Your task to perform on an android device: turn off notifications settings in the gmail app Image 0: 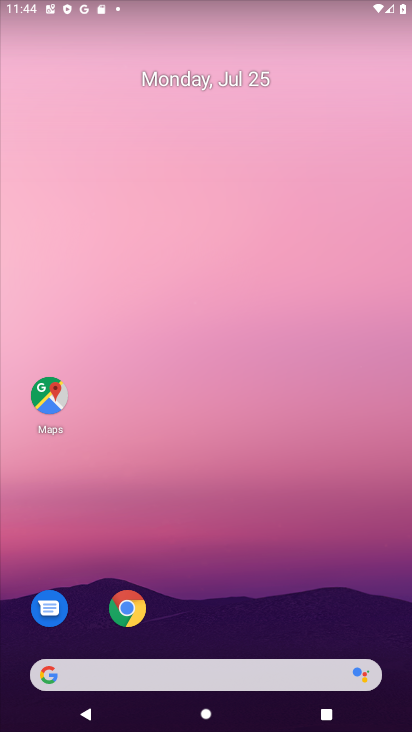
Step 0: drag from (216, 643) to (213, 137)
Your task to perform on an android device: turn off notifications settings in the gmail app Image 1: 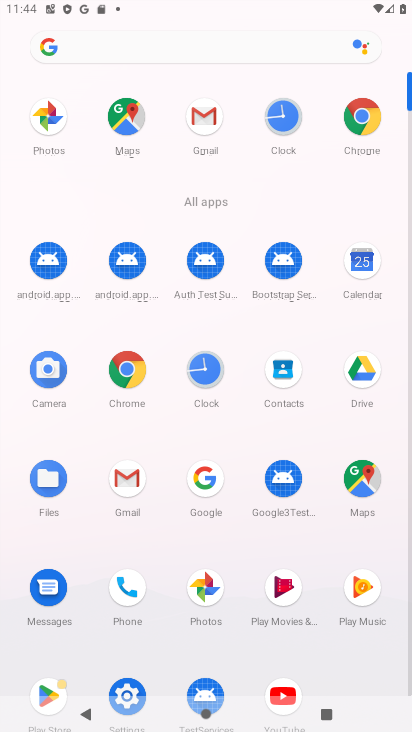
Step 1: click (108, 488)
Your task to perform on an android device: turn off notifications settings in the gmail app Image 2: 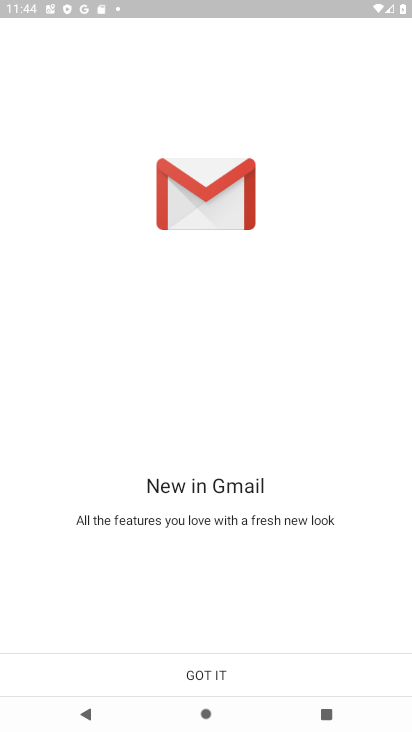
Step 2: click (204, 671)
Your task to perform on an android device: turn off notifications settings in the gmail app Image 3: 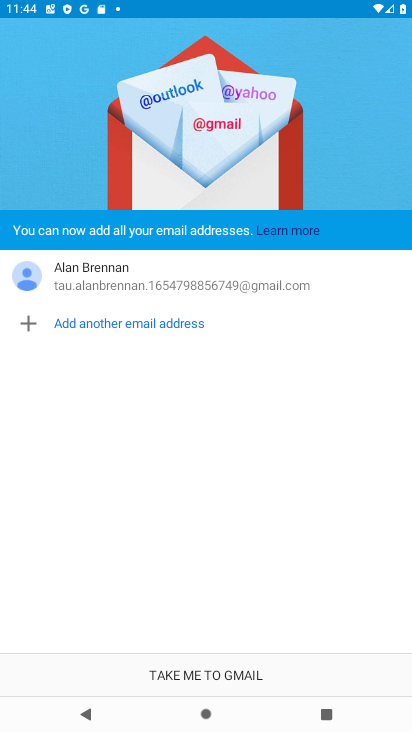
Step 3: click (238, 678)
Your task to perform on an android device: turn off notifications settings in the gmail app Image 4: 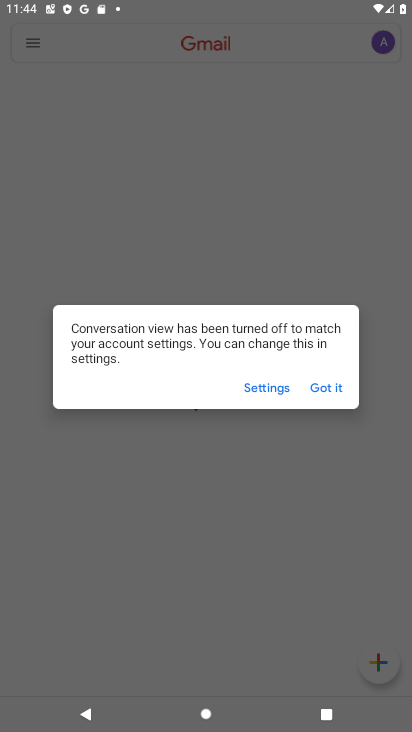
Step 4: click (334, 390)
Your task to perform on an android device: turn off notifications settings in the gmail app Image 5: 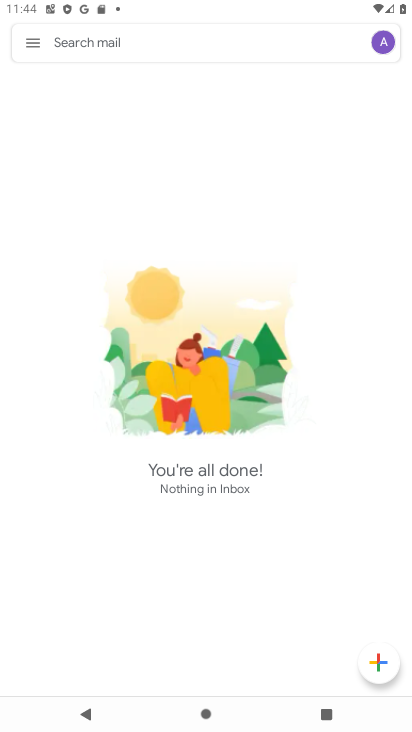
Step 5: click (28, 48)
Your task to perform on an android device: turn off notifications settings in the gmail app Image 6: 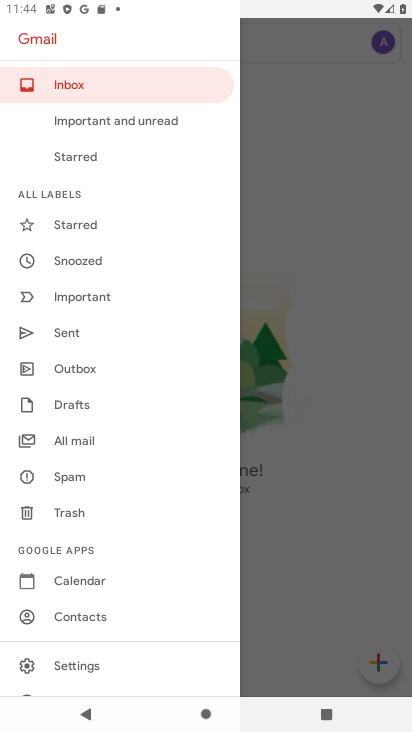
Step 6: click (92, 664)
Your task to perform on an android device: turn off notifications settings in the gmail app Image 7: 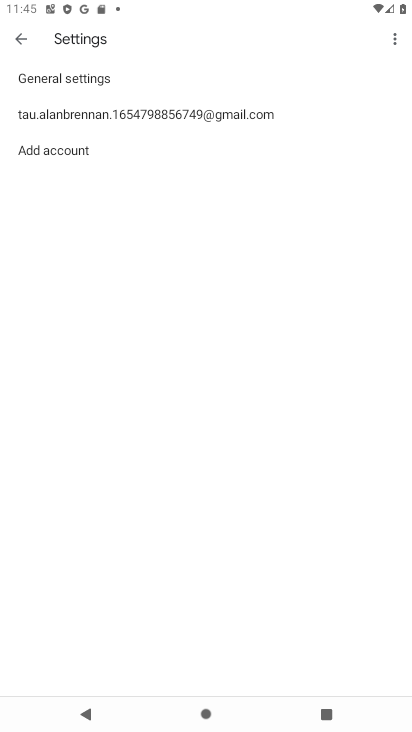
Step 7: click (119, 113)
Your task to perform on an android device: turn off notifications settings in the gmail app Image 8: 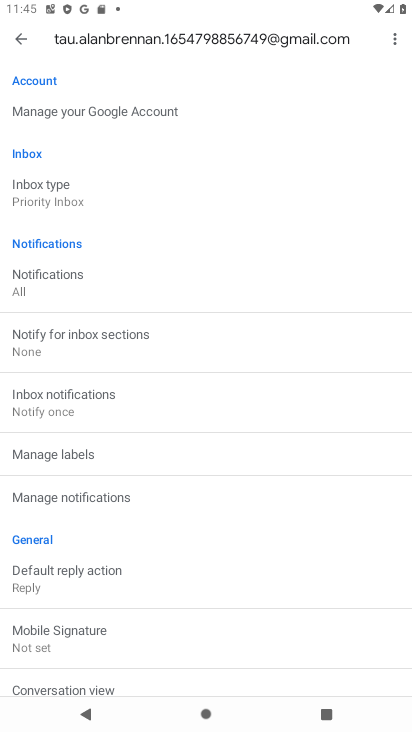
Step 8: click (96, 501)
Your task to perform on an android device: turn off notifications settings in the gmail app Image 9: 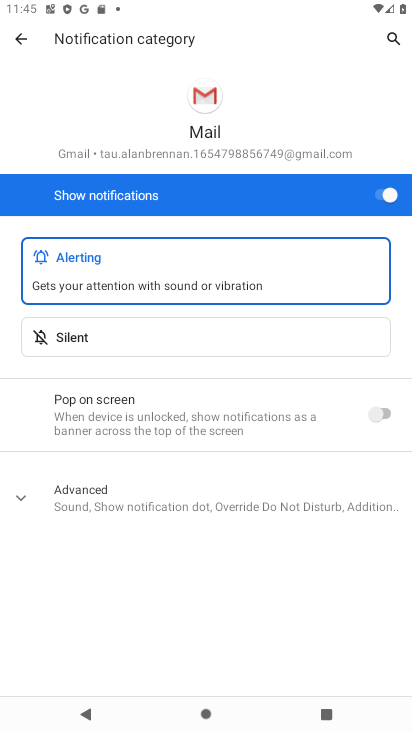
Step 9: click (383, 193)
Your task to perform on an android device: turn off notifications settings in the gmail app Image 10: 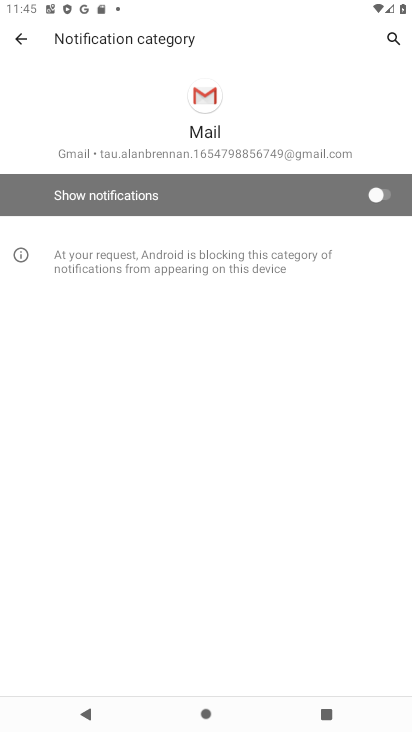
Step 10: task complete